Your task to perform on an android device: turn on airplane mode Image 0: 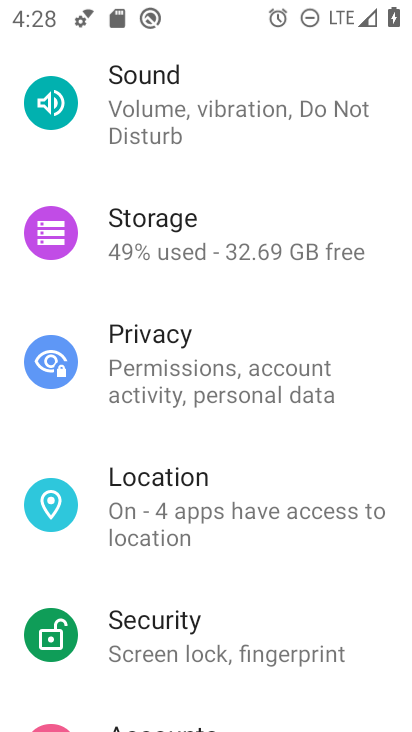
Step 0: drag from (265, 12) to (263, 566)
Your task to perform on an android device: turn on airplane mode Image 1: 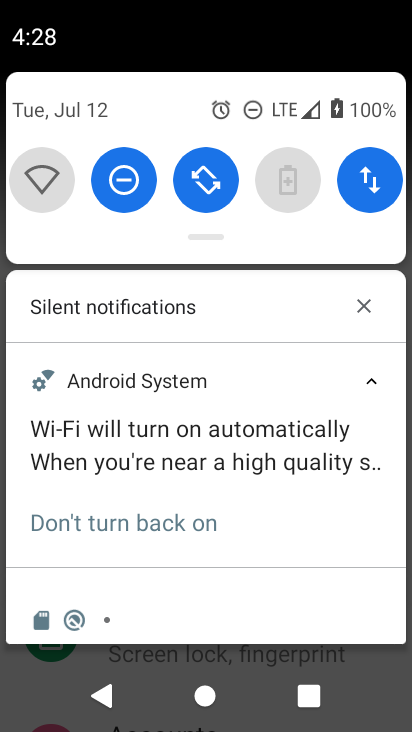
Step 1: drag from (208, 224) to (198, 658)
Your task to perform on an android device: turn on airplane mode Image 2: 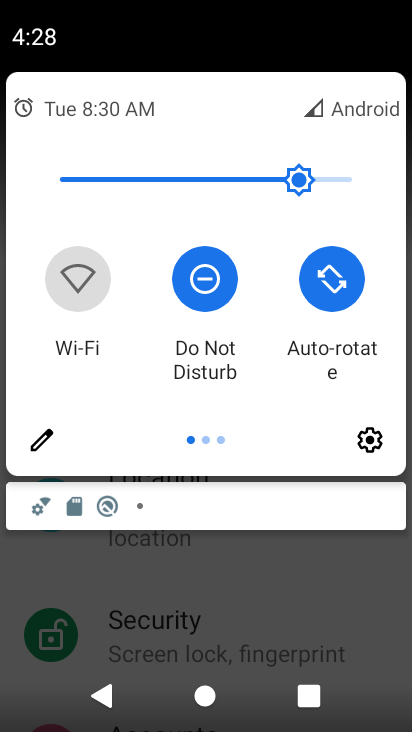
Step 2: drag from (362, 314) to (80, 323)
Your task to perform on an android device: turn on airplane mode Image 3: 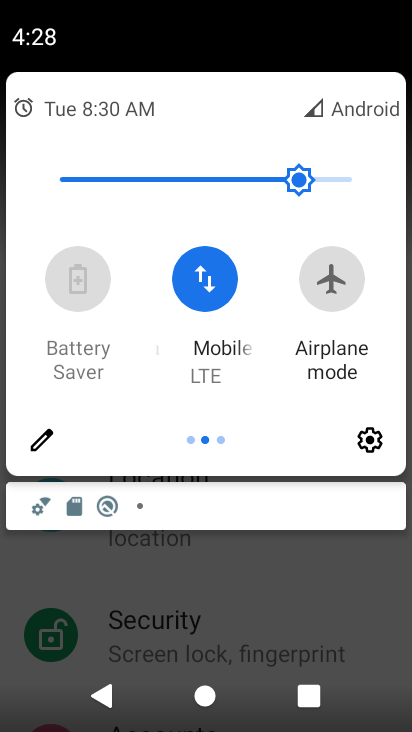
Step 3: click (337, 280)
Your task to perform on an android device: turn on airplane mode Image 4: 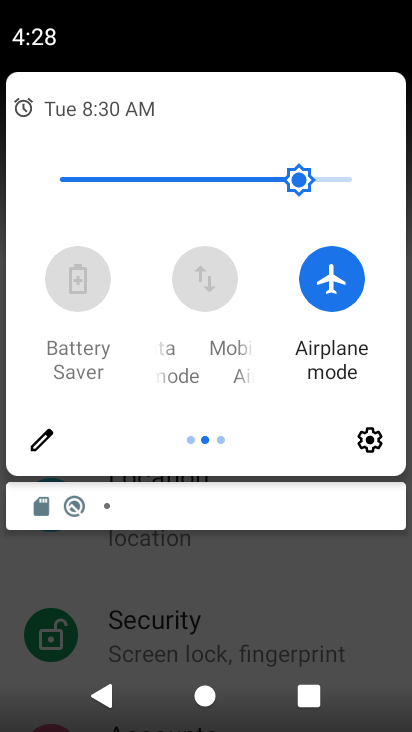
Step 4: task complete